Your task to perform on an android device: Open Google Maps Image 0: 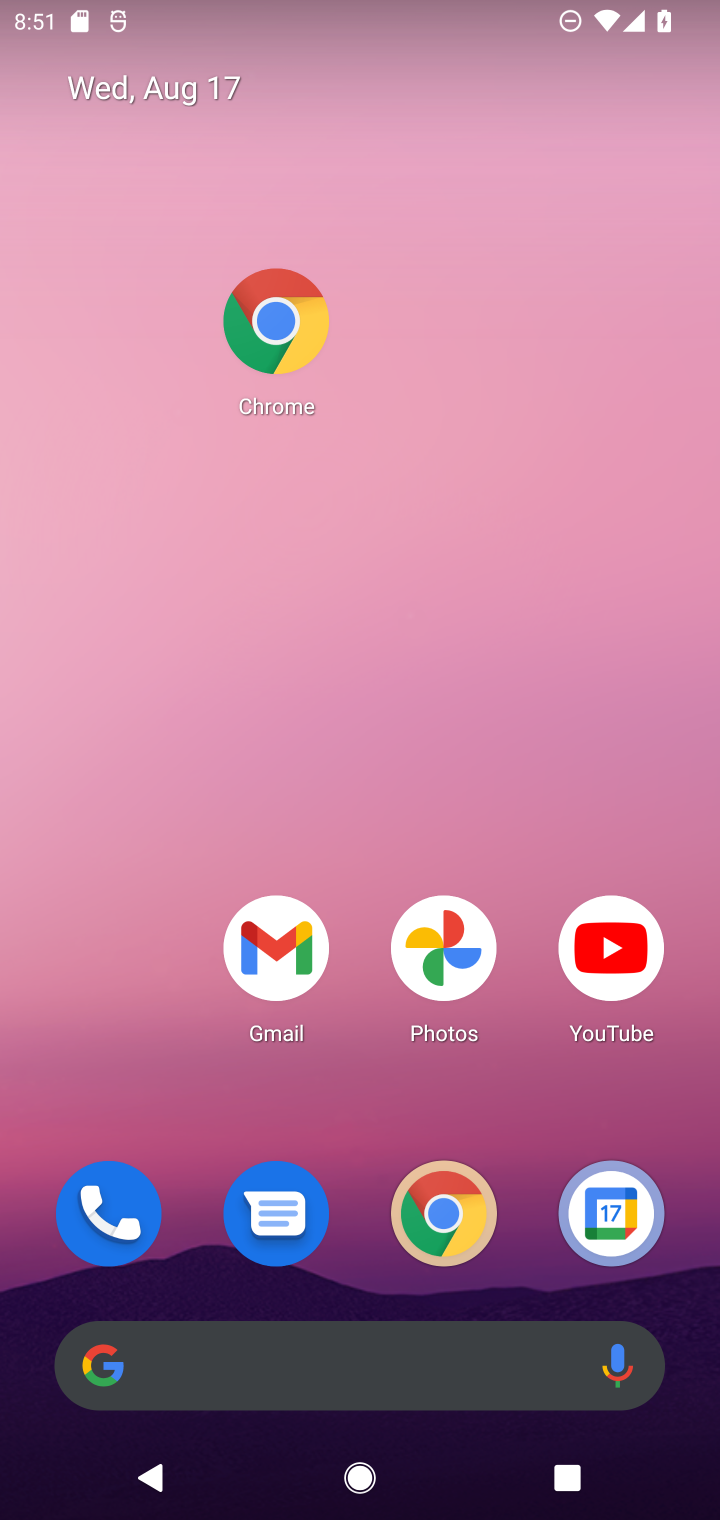
Step 0: drag from (394, 1293) to (446, 457)
Your task to perform on an android device: Open Google Maps Image 1: 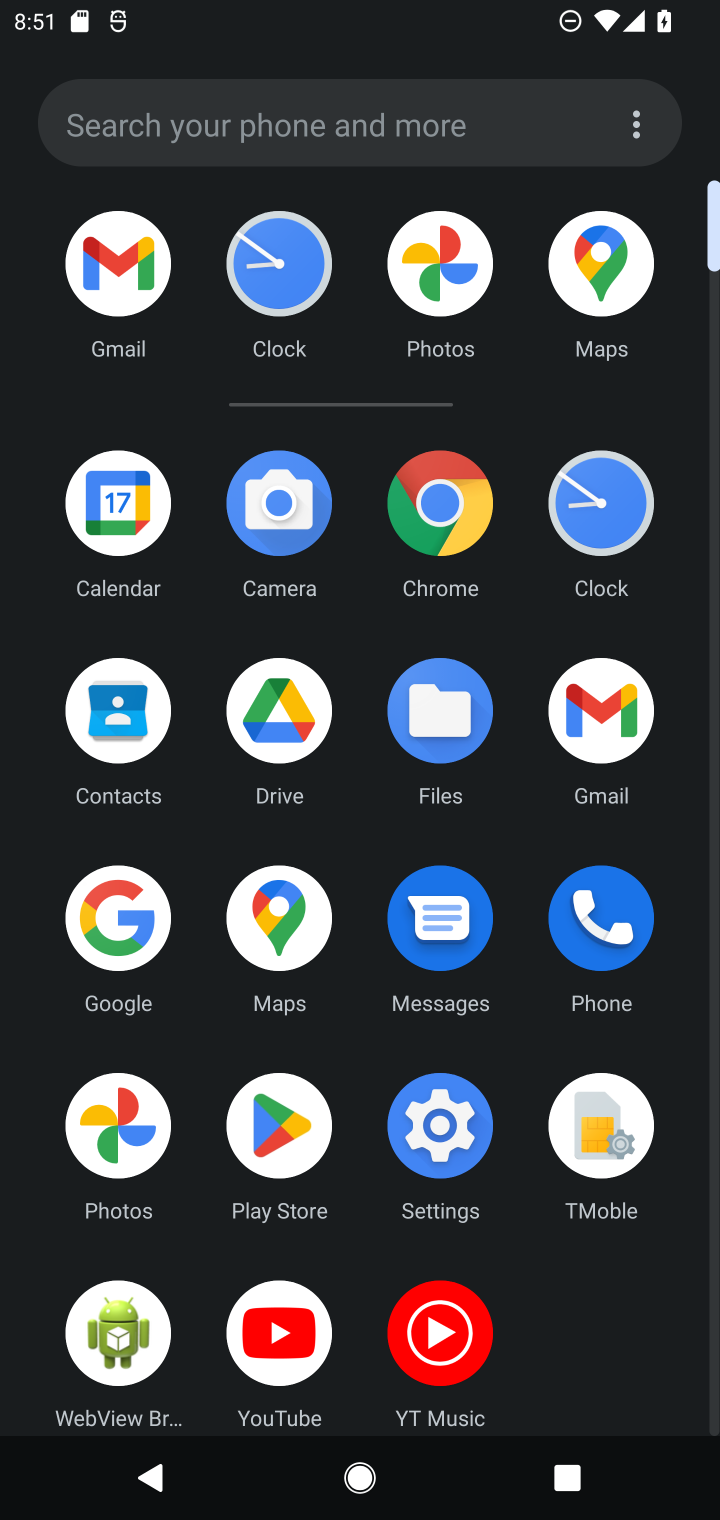
Step 1: click (578, 315)
Your task to perform on an android device: Open Google Maps Image 2: 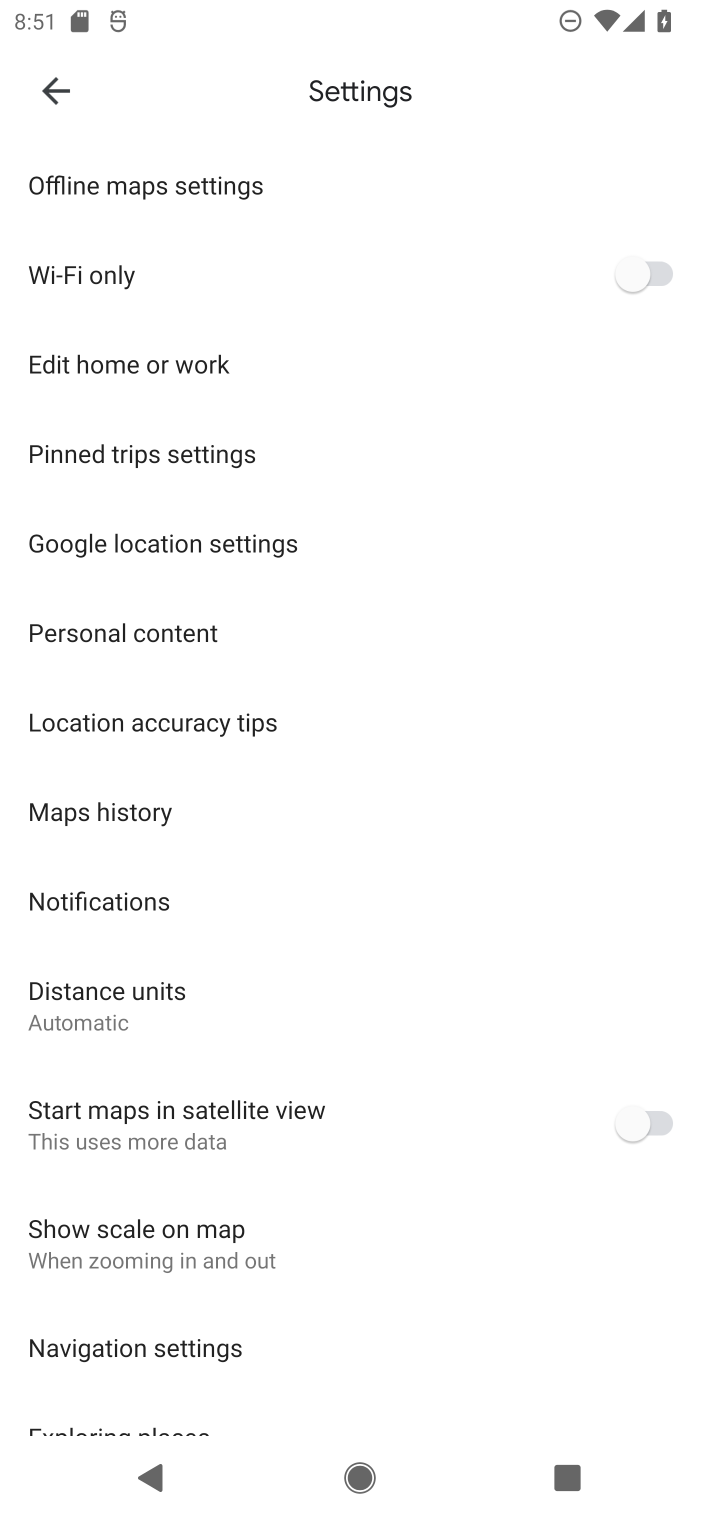
Step 2: task complete